Your task to perform on an android device: open sync settings in chrome Image 0: 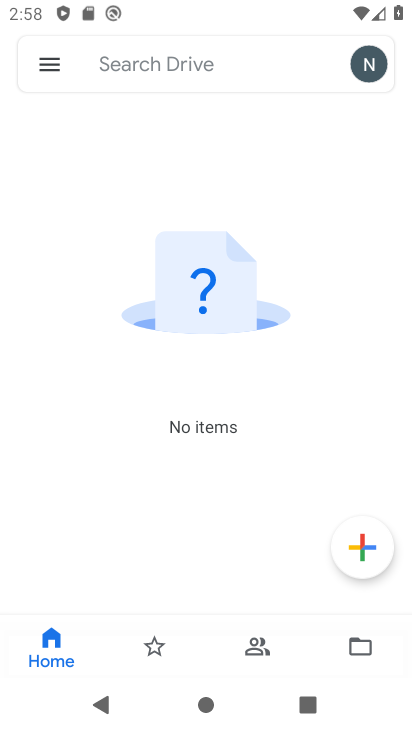
Step 0: press home button
Your task to perform on an android device: open sync settings in chrome Image 1: 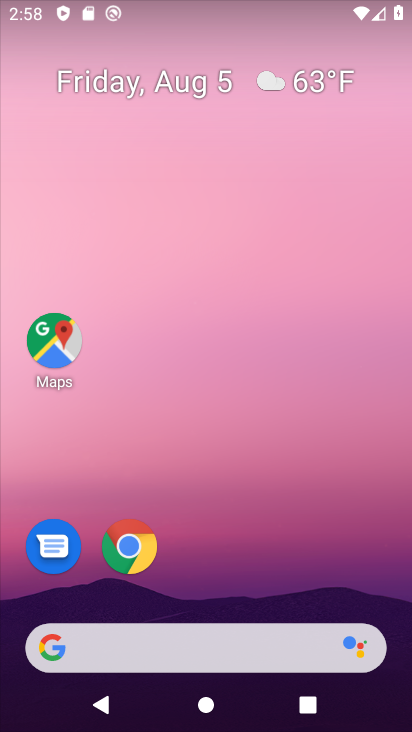
Step 1: drag from (271, 555) to (312, 94)
Your task to perform on an android device: open sync settings in chrome Image 2: 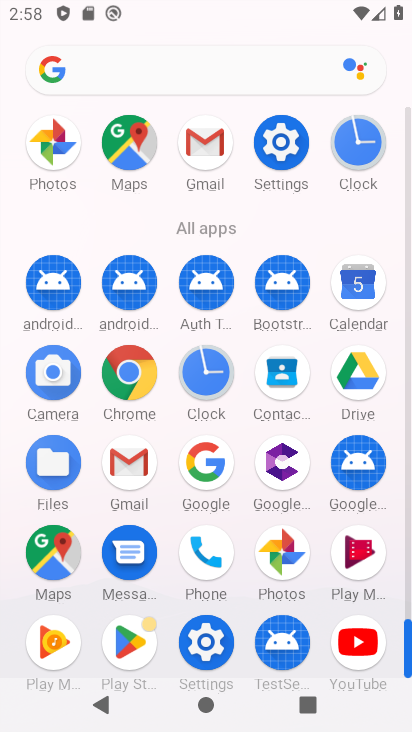
Step 2: click (132, 382)
Your task to perform on an android device: open sync settings in chrome Image 3: 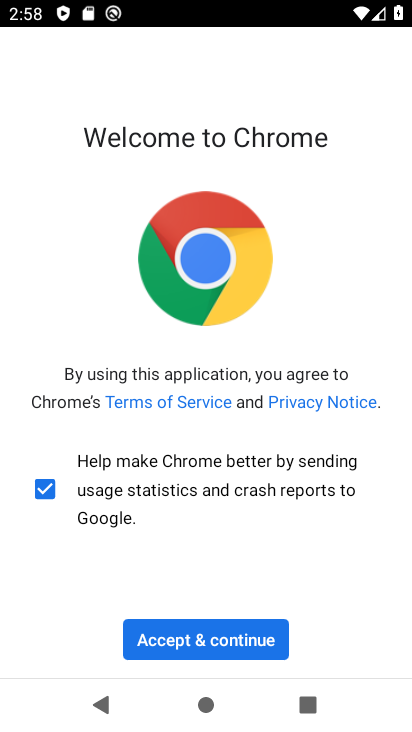
Step 3: click (188, 638)
Your task to perform on an android device: open sync settings in chrome Image 4: 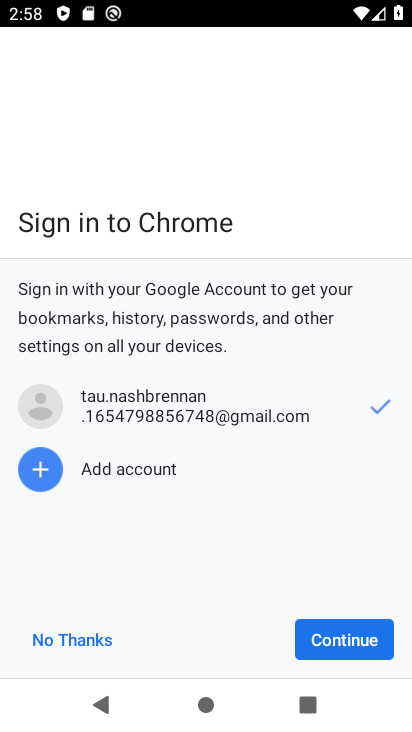
Step 4: click (325, 635)
Your task to perform on an android device: open sync settings in chrome Image 5: 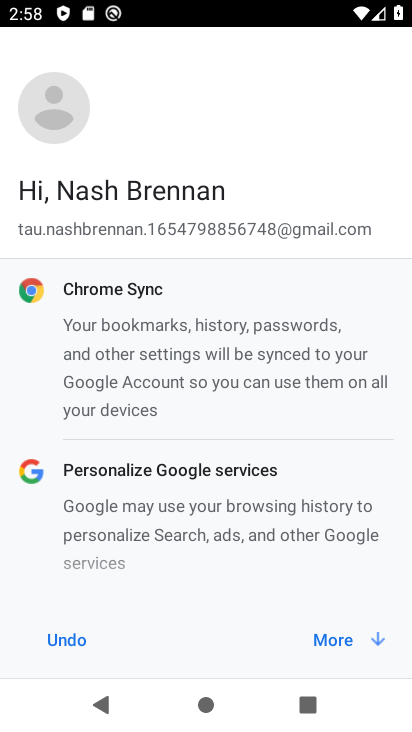
Step 5: click (338, 632)
Your task to perform on an android device: open sync settings in chrome Image 6: 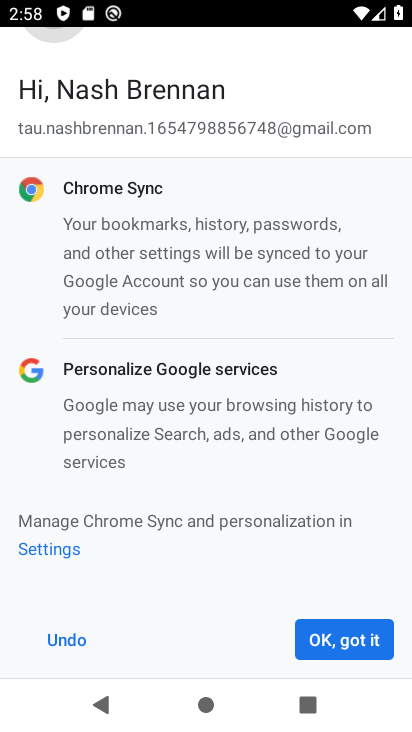
Step 6: click (352, 636)
Your task to perform on an android device: open sync settings in chrome Image 7: 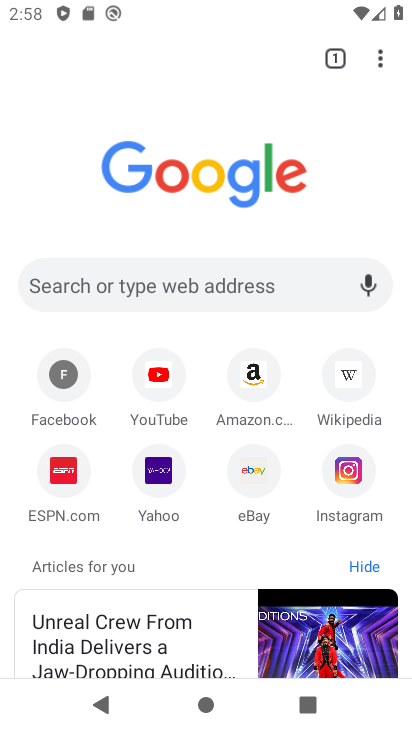
Step 7: click (380, 63)
Your task to perform on an android device: open sync settings in chrome Image 8: 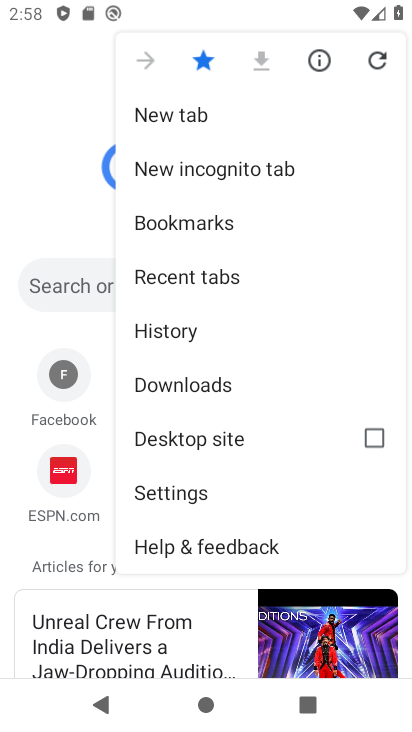
Step 8: click (229, 492)
Your task to perform on an android device: open sync settings in chrome Image 9: 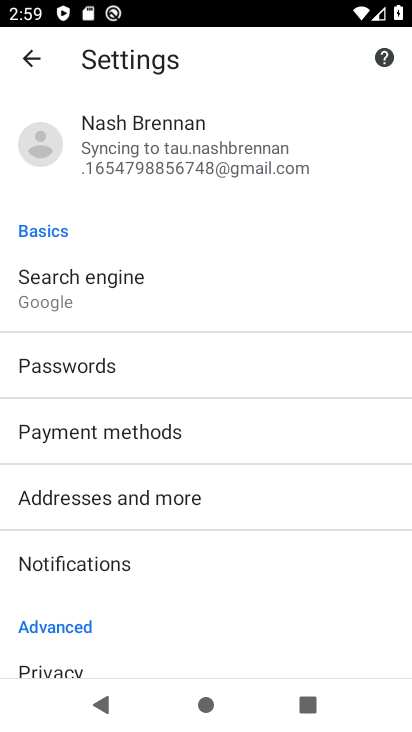
Step 9: drag from (278, 541) to (301, 353)
Your task to perform on an android device: open sync settings in chrome Image 10: 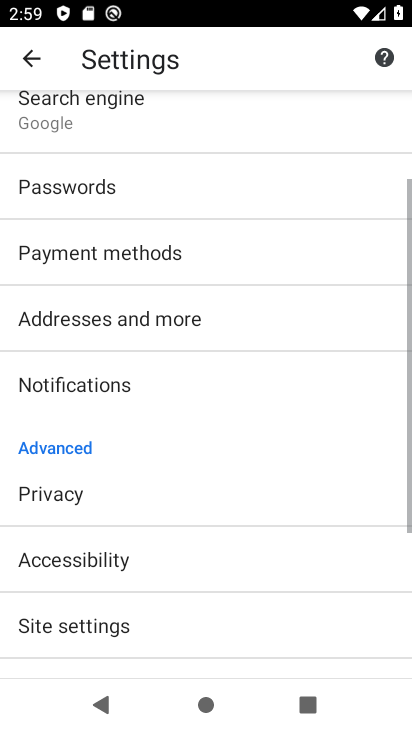
Step 10: drag from (299, 535) to (297, 384)
Your task to perform on an android device: open sync settings in chrome Image 11: 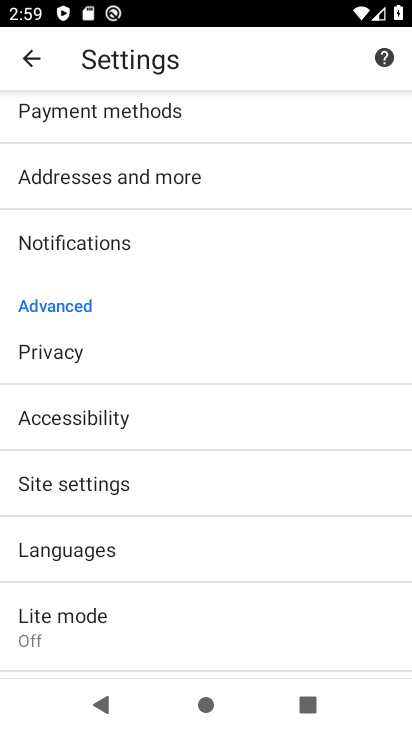
Step 11: click (223, 480)
Your task to perform on an android device: open sync settings in chrome Image 12: 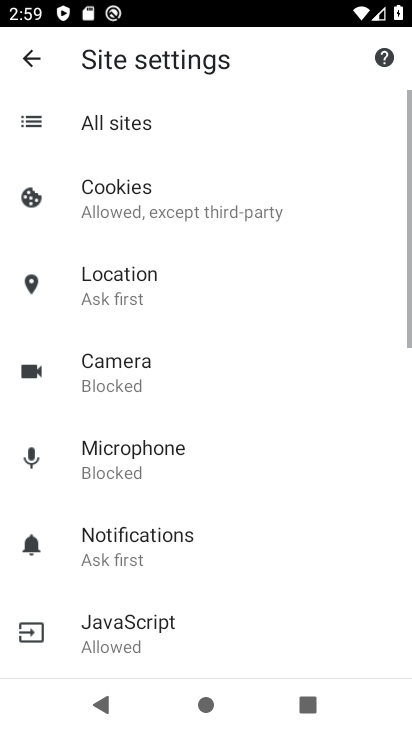
Step 12: drag from (252, 527) to (267, 364)
Your task to perform on an android device: open sync settings in chrome Image 13: 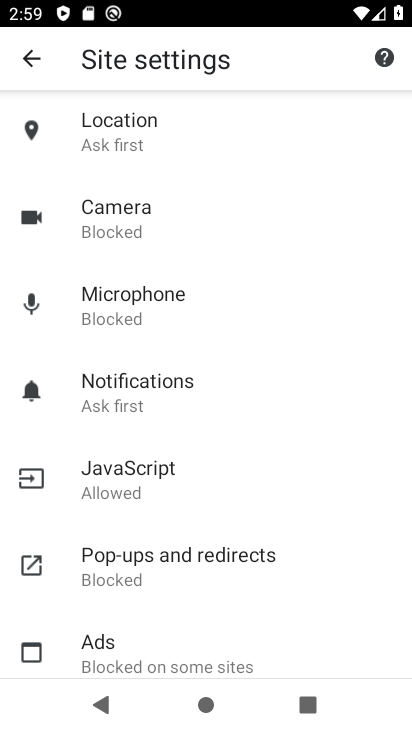
Step 13: drag from (280, 492) to (290, 332)
Your task to perform on an android device: open sync settings in chrome Image 14: 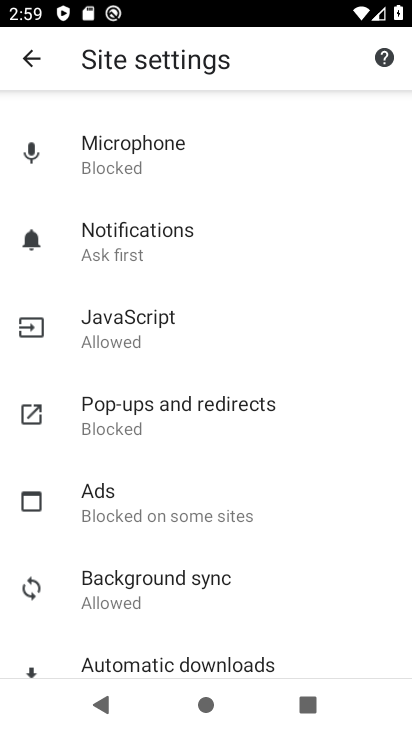
Step 14: drag from (292, 521) to (300, 380)
Your task to perform on an android device: open sync settings in chrome Image 15: 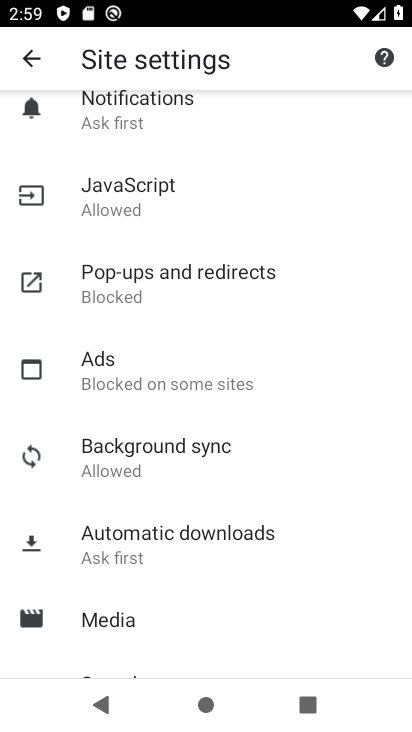
Step 15: click (270, 446)
Your task to perform on an android device: open sync settings in chrome Image 16: 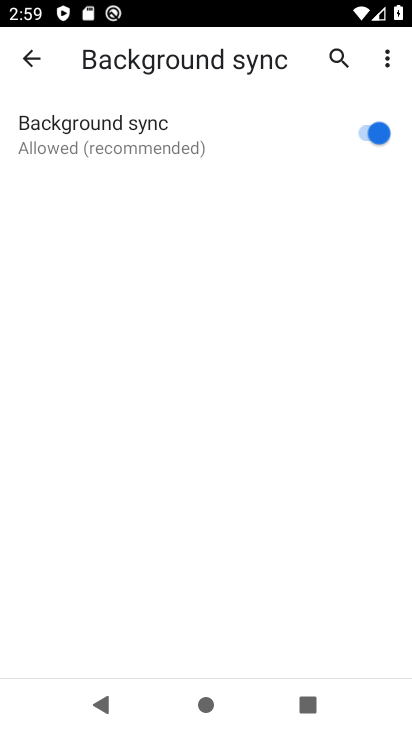
Step 16: task complete